Your task to perform on an android device: change keyboard looks Image 0: 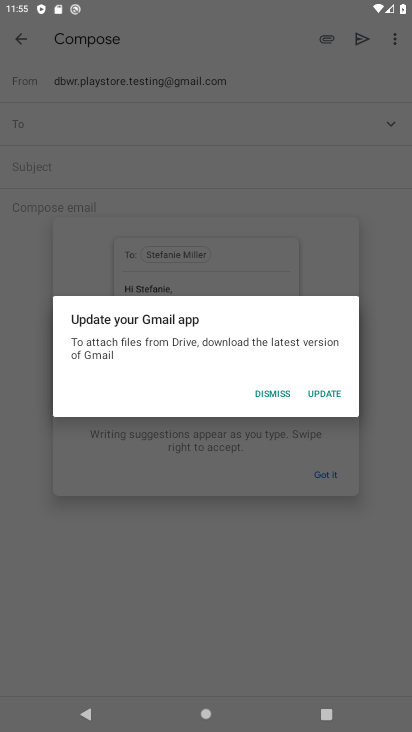
Step 0: press home button
Your task to perform on an android device: change keyboard looks Image 1: 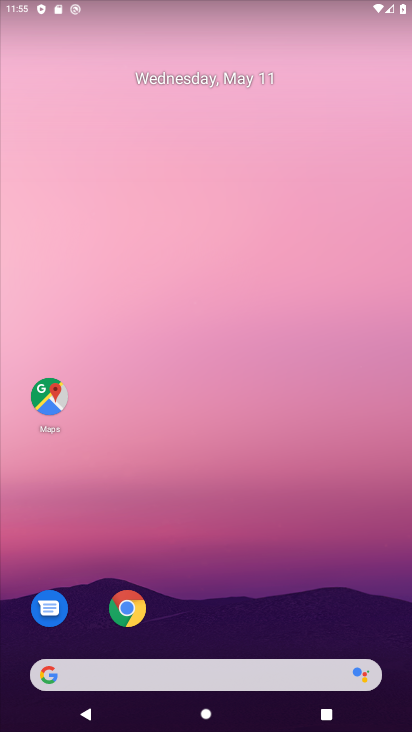
Step 1: drag from (378, 317) to (377, 3)
Your task to perform on an android device: change keyboard looks Image 2: 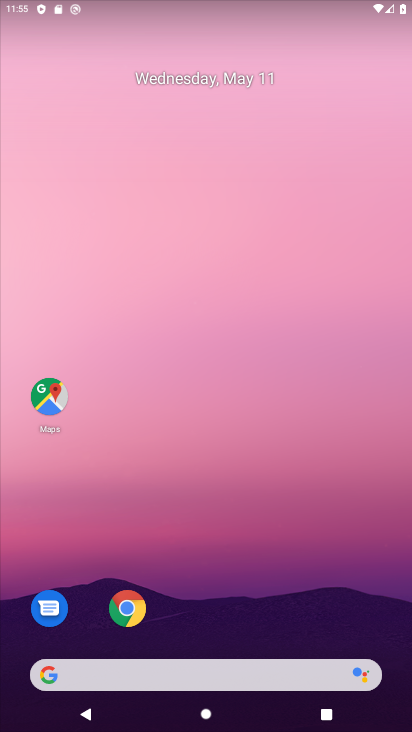
Step 2: drag from (292, 603) to (353, 61)
Your task to perform on an android device: change keyboard looks Image 3: 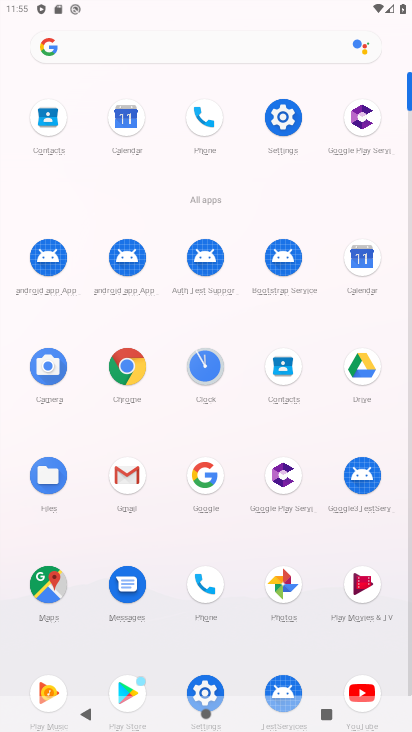
Step 3: click (292, 138)
Your task to perform on an android device: change keyboard looks Image 4: 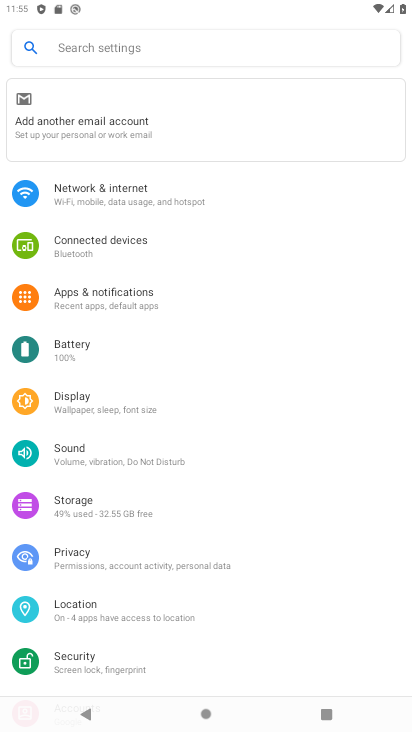
Step 4: drag from (205, 642) to (236, 366)
Your task to perform on an android device: change keyboard looks Image 5: 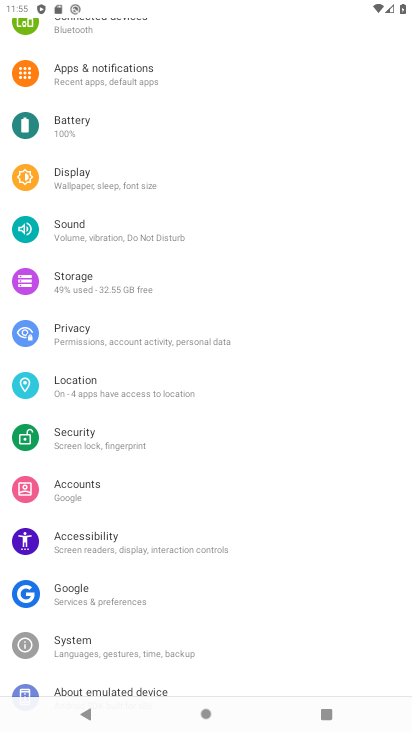
Step 5: click (87, 636)
Your task to perform on an android device: change keyboard looks Image 6: 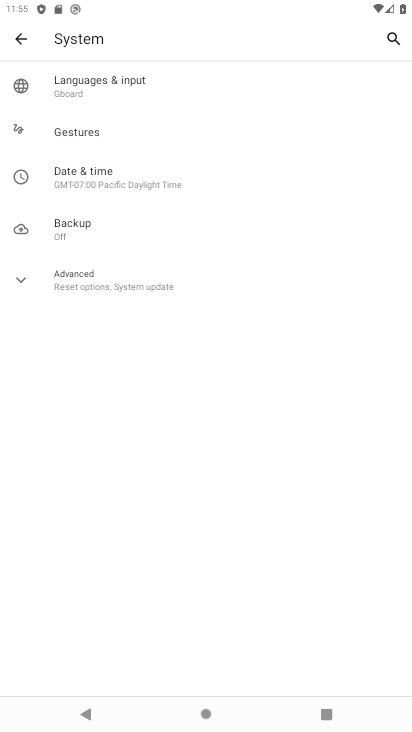
Step 6: click (72, 91)
Your task to perform on an android device: change keyboard looks Image 7: 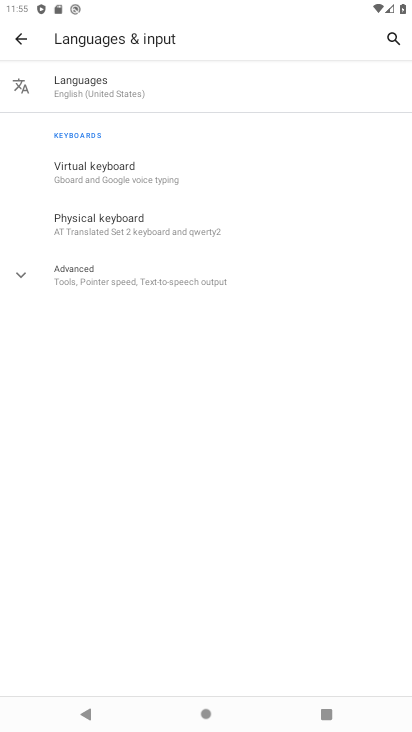
Step 7: click (71, 178)
Your task to perform on an android device: change keyboard looks Image 8: 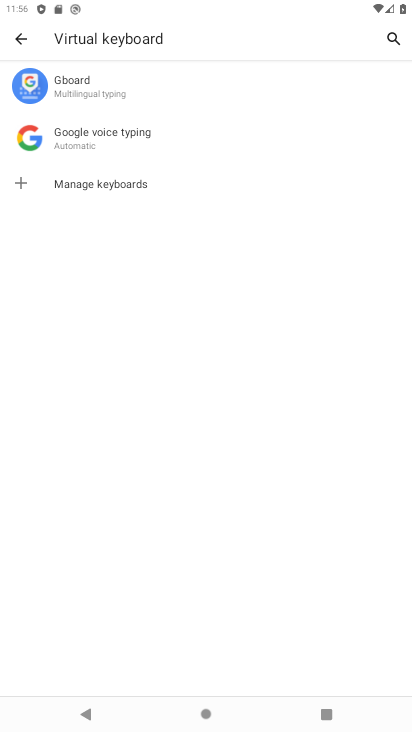
Step 8: click (66, 93)
Your task to perform on an android device: change keyboard looks Image 9: 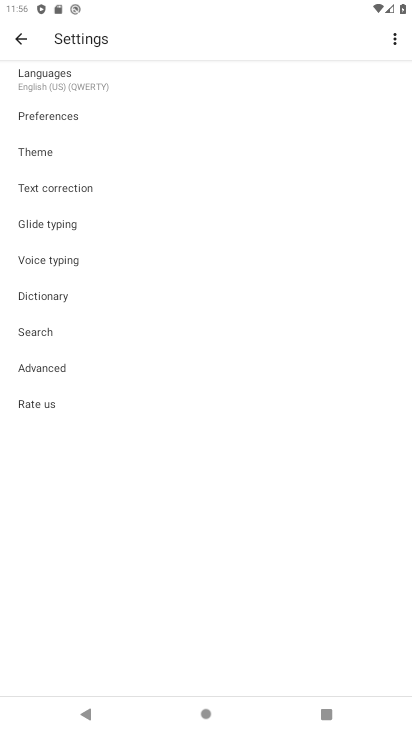
Step 9: click (49, 164)
Your task to perform on an android device: change keyboard looks Image 10: 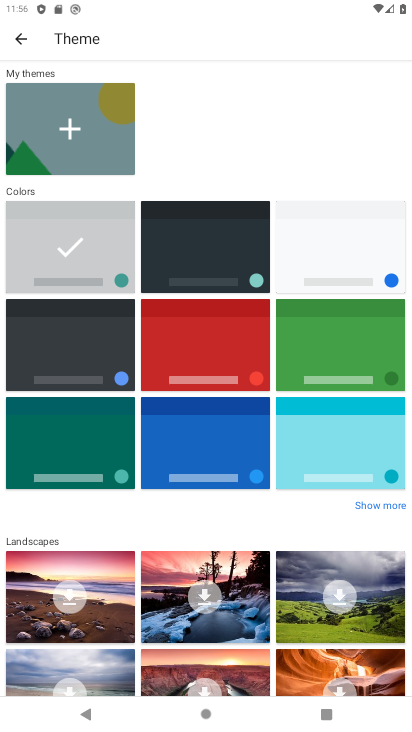
Step 10: click (156, 335)
Your task to perform on an android device: change keyboard looks Image 11: 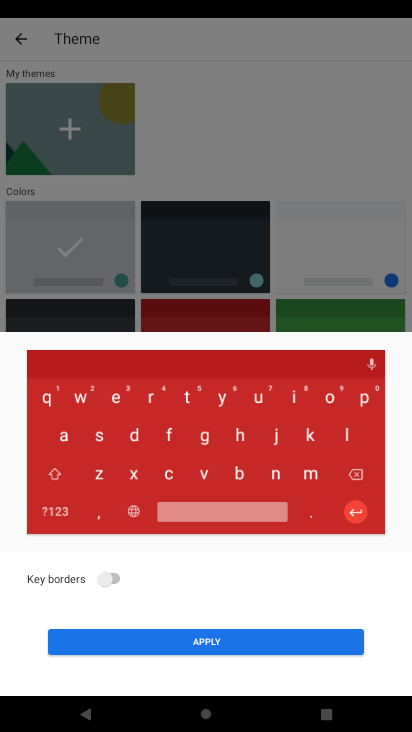
Step 11: click (146, 631)
Your task to perform on an android device: change keyboard looks Image 12: 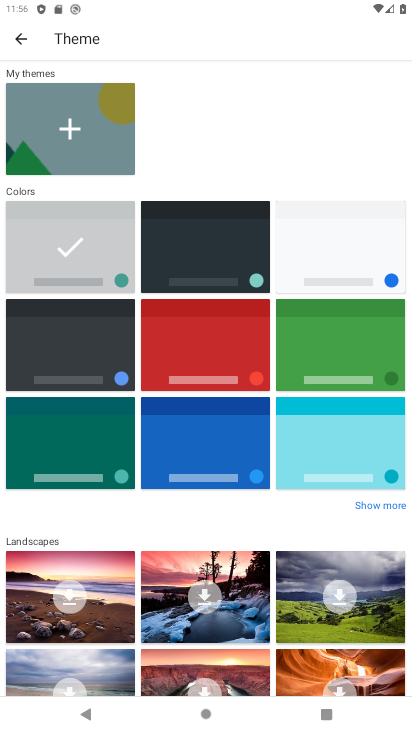
Step 12: click (216, 638)
Your task to perform on an android device: change keyboard looks Image 13: 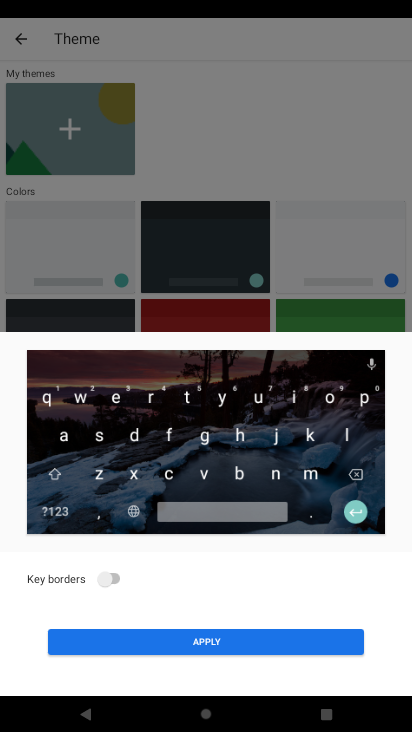
Step 13: click (243, 642)
Your task to perform on an android device: change keyboard looks Image 14: 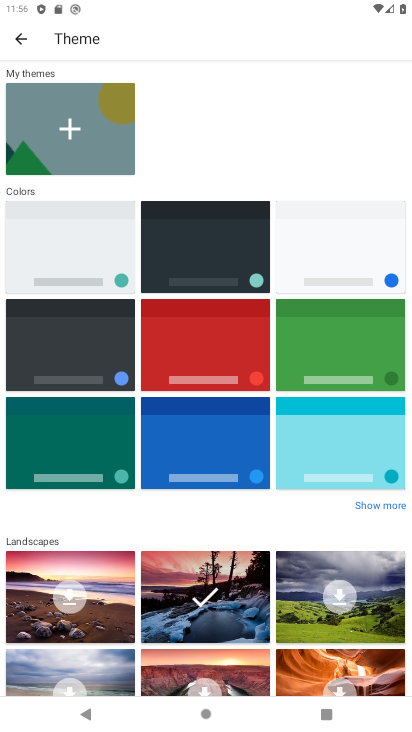
Step 14: task complete